Your task to perform on an android device: Open display settings Image 0: 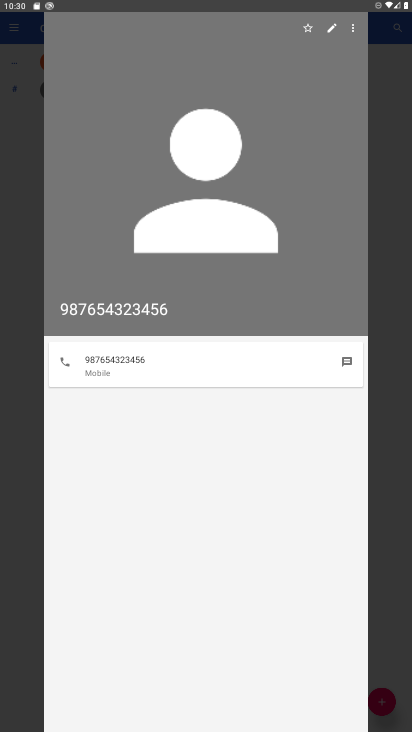
Step 0: press home button
Your task to perform on an android device: Open display settings Image 1: 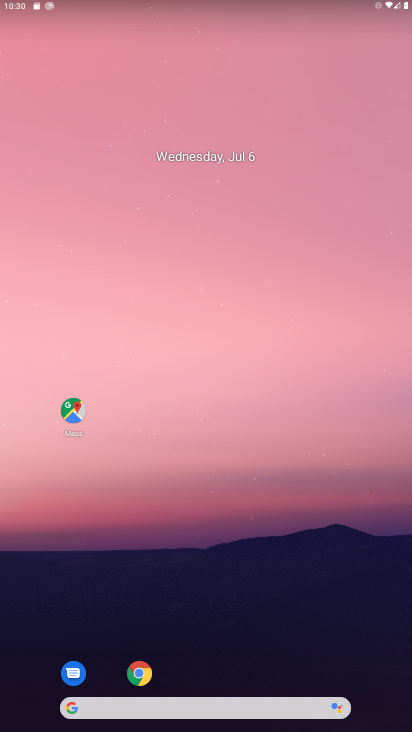
Step 1: drag from (243, 15) to (235, 509)
Your task to perform on an android device: Open display settings Image 2: 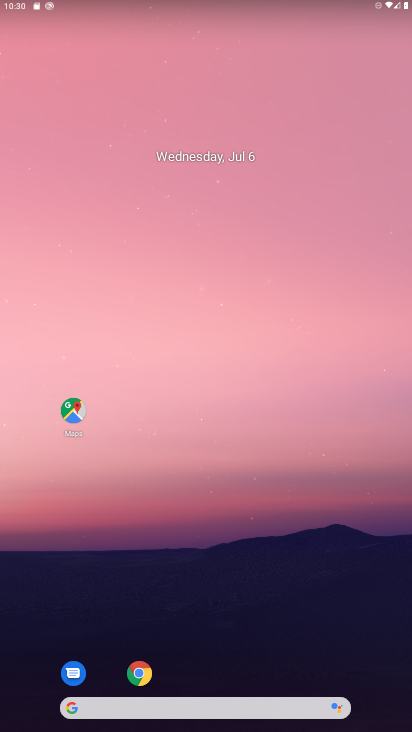
Step 2: drag from (349, 6) to (349, 525)
Your task to perform on an android device: Open display settings Image 3: 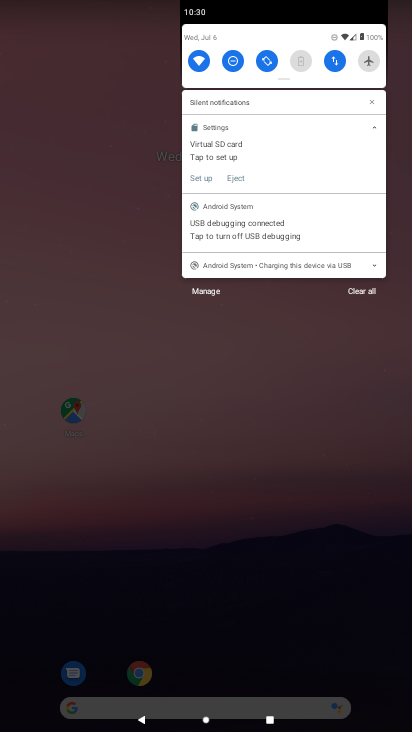
Step 3: drag from (293, 34) to (248, 587)
Your task to perform on an android device: Open display settings Image 4: 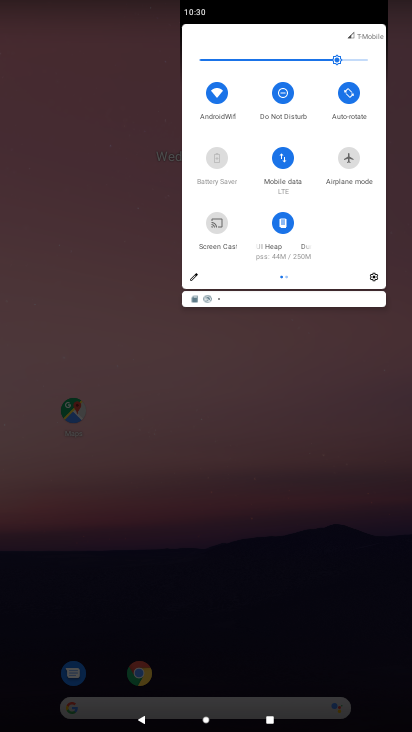
Step 4: click (373, 276)
Your task to perform on an android device: Open display settings Image 5: 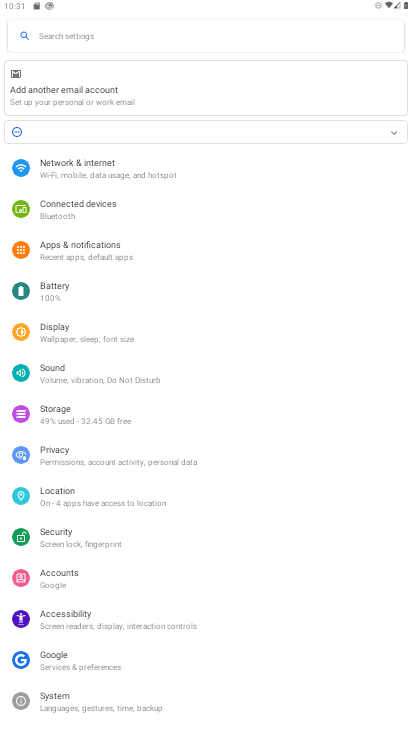
Step 5: click (95, 332)
Your task to perform on an android device: Open display settings Image 6: 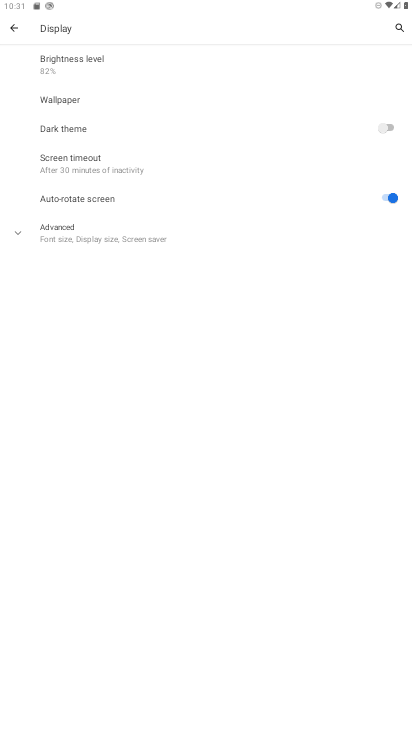
Step 6: task complete